Your task to perform on an android device: change the upload size in google photos Image 0: 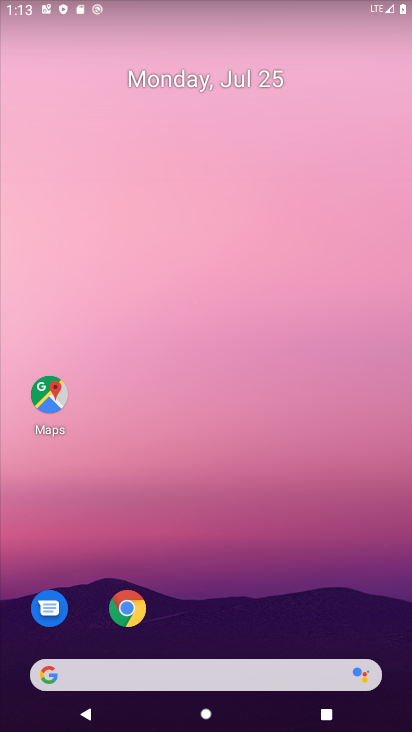
Step 0: drag from (238, 642) to (274, 31)
Your task to perform on an android device: change the upload size in google photos Image 1: 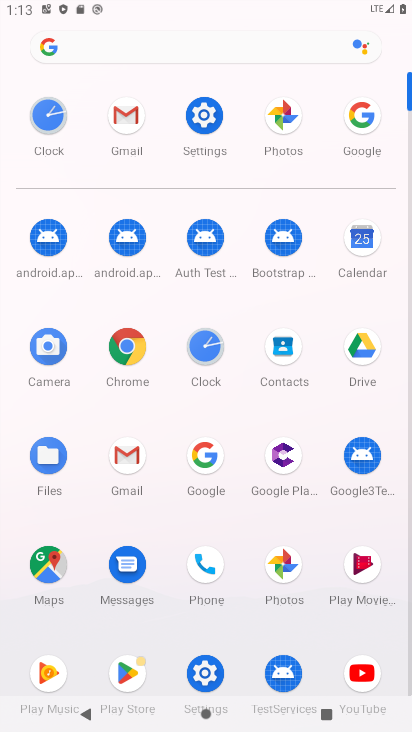
Step 1: click (279, 127)
Your task to perform on an android device: change the upload size in google photos Image 2: 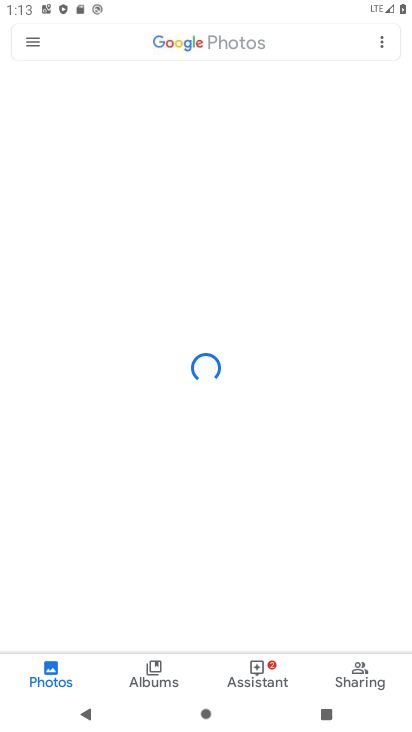
Step 2: click (33, 50)
Your task to perform on an android device: change the upload size in google photos Image 3: 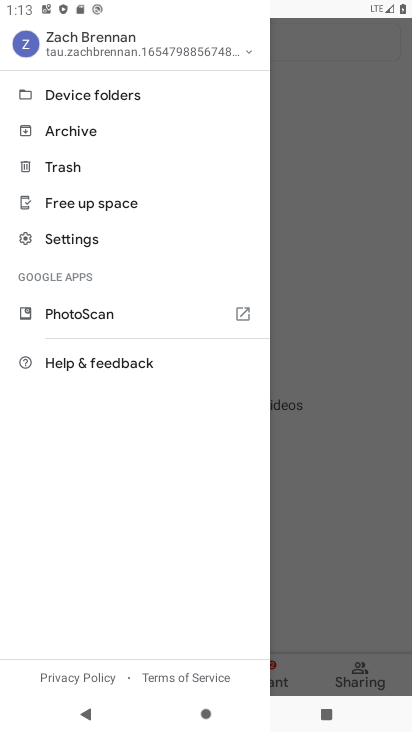
Step 3: click (69, 248)
Your task to perform on an android device: change the upload size in google photos Image 4: 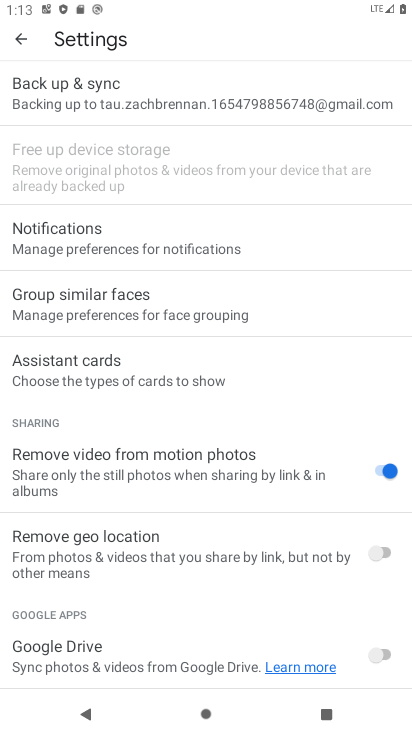
Step 4: click (86, 100)
Your task to perform on an android device: change the upload size in google photos Image 5: 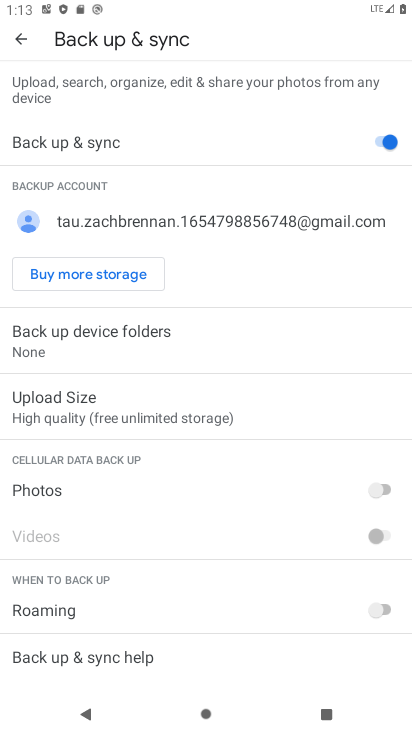
Step 5: click (88, 426)
Your task to perform on an android device: change the upload size in google photos Image 6: 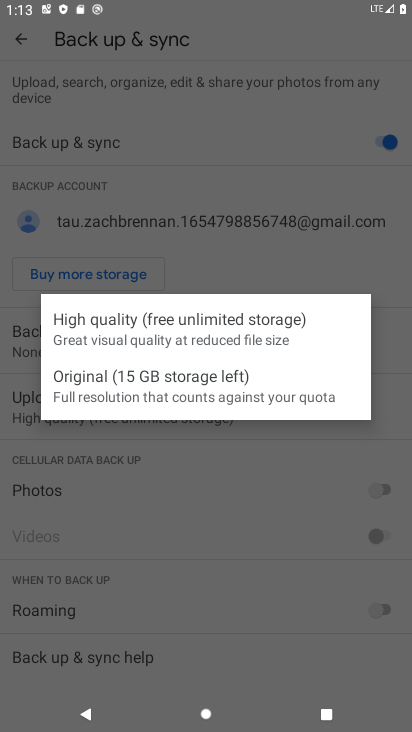
Step 6: click (88, 380)
Your task to perform on an android device: change the upload size in google photos Image 7: 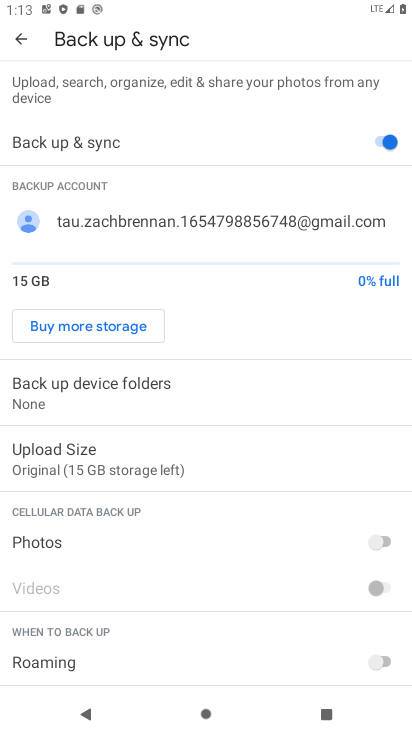
Step 7: task complete